Your task to perform on an android device: turn on wifi Image 0: 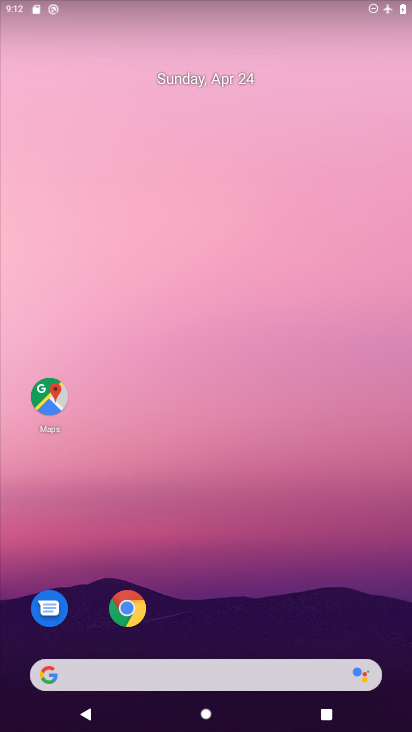
Step 0: drag from (183, 628) to (232, 88)
Your task to perform on an android device: turn on wifi Image 1: 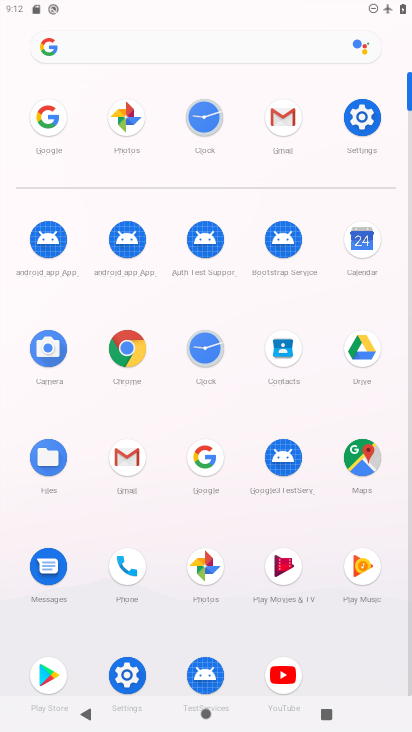
Step 1: click (347, 123)
Your task to perform on an android device: turn on wifi Image 2: 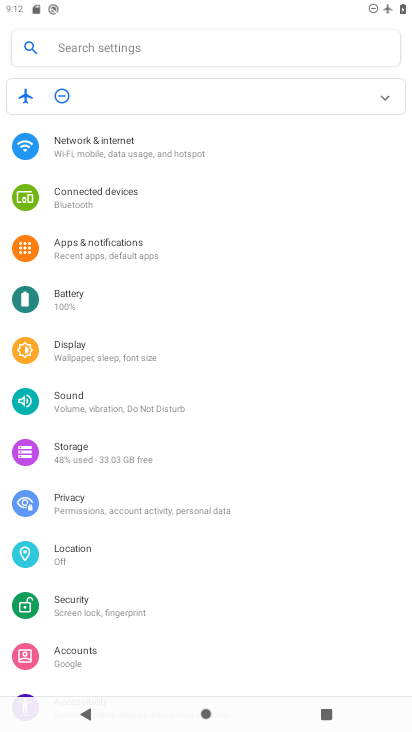
Step 2: click (181, 159)
Your task to perform on an android device: turn on wifi Image 3: 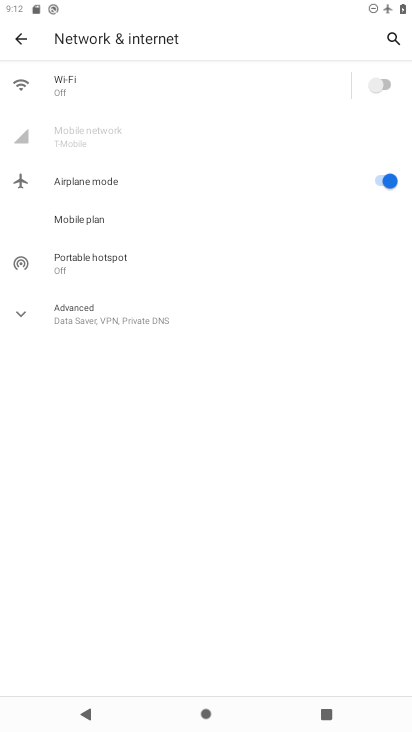
Step 3: click (387, 84)
Your task to perform on an android device: turn on wifi Image 4: 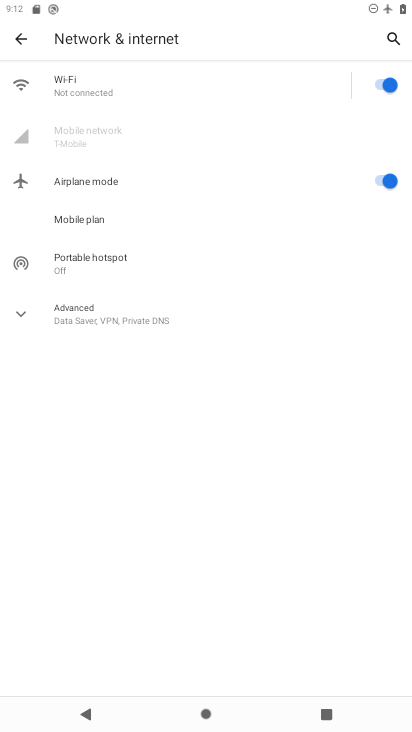
Step 4: task complete